Your task to perform on an android device: Open Maps and search for coffee Image 0: 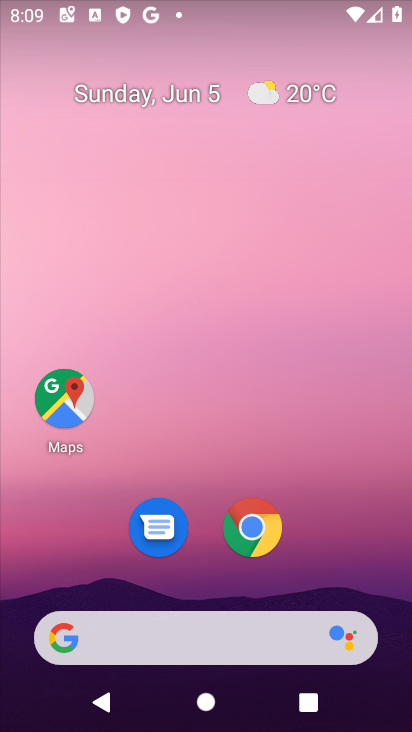
Step 0: click (83, 406)
Your task to perform on an android device: Open Maps and search for coffee Image 1: 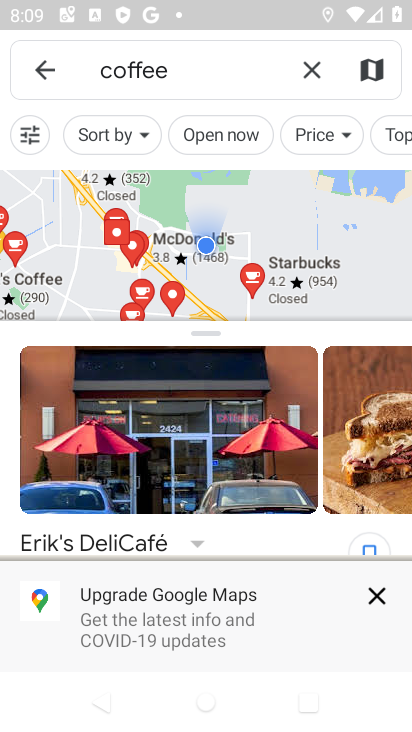
Step 1: task complete